Your task to perform on an android device: Open Google Maps Image 0: 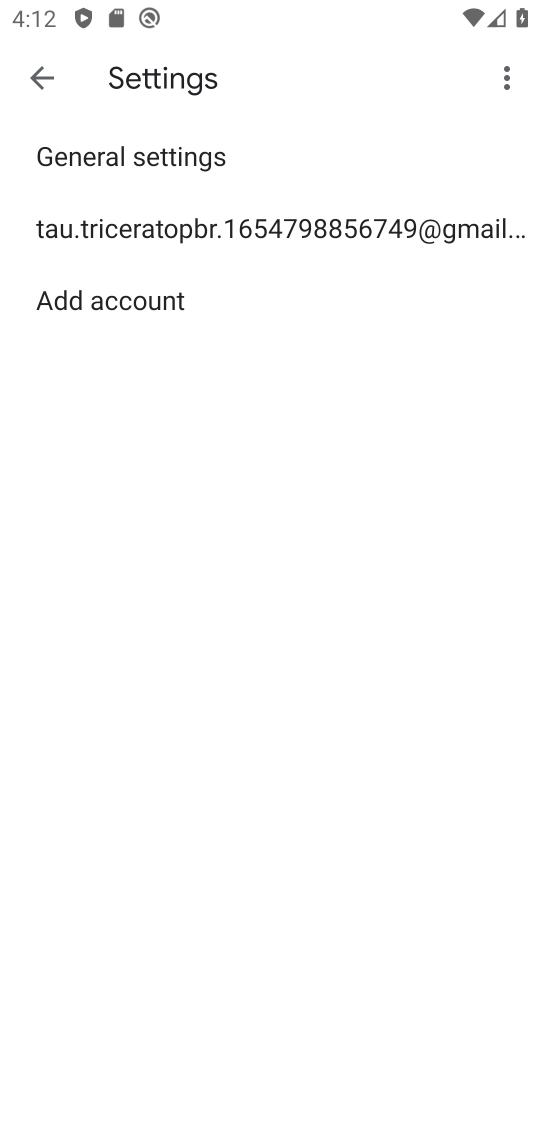
Step 0: press home button
Your task to perform on an android device: Open Google Maps Image 1: 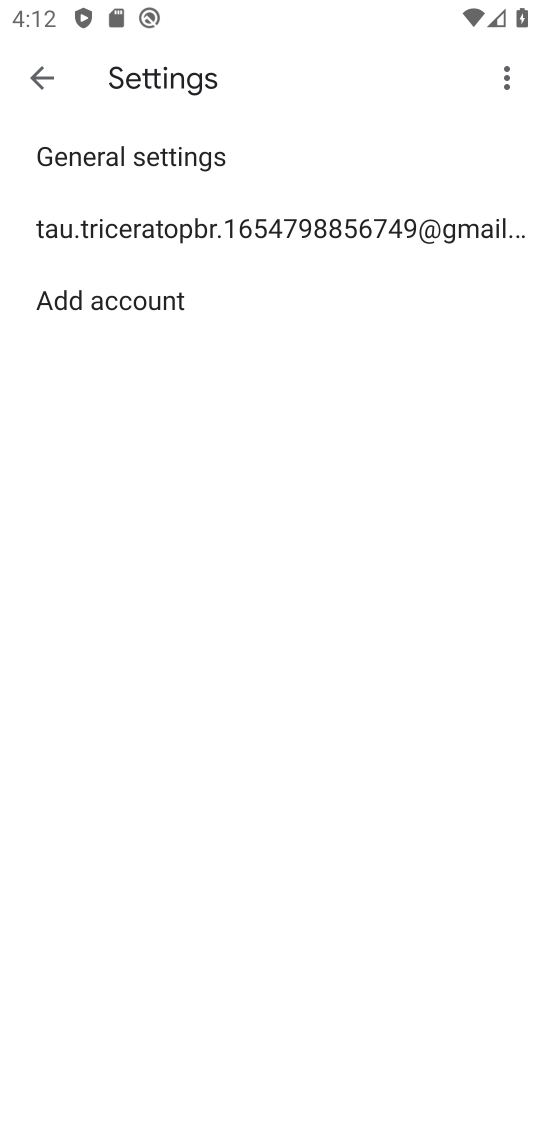
Step 1: press home button
Your task to perform on an android device: Open Google Maps Image 2: 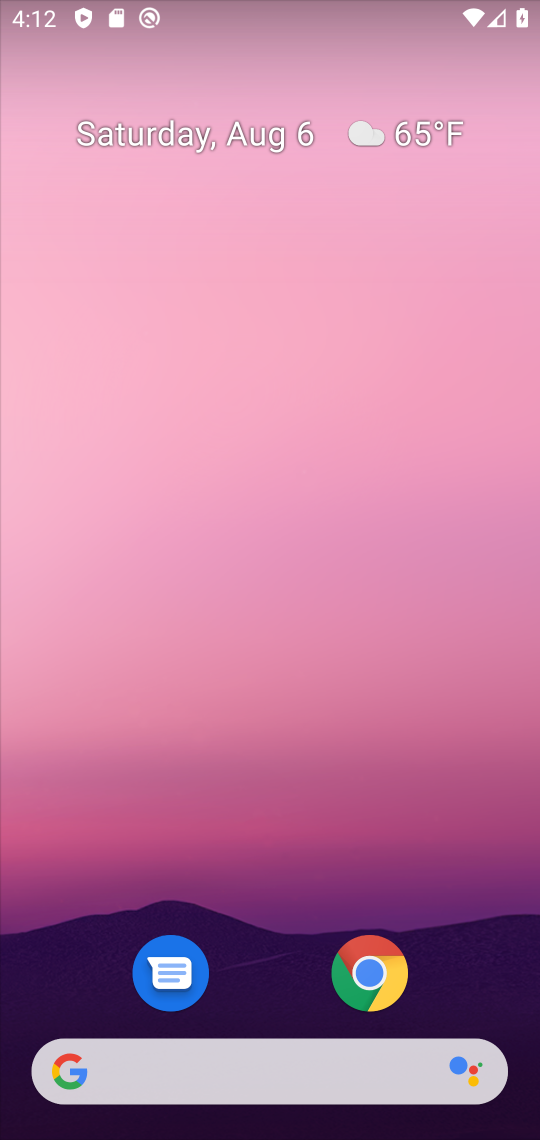
Step 2: drag from (257, 858) to (209, 36)
Your task to perform on an android device: Open Google Maps Image 3: 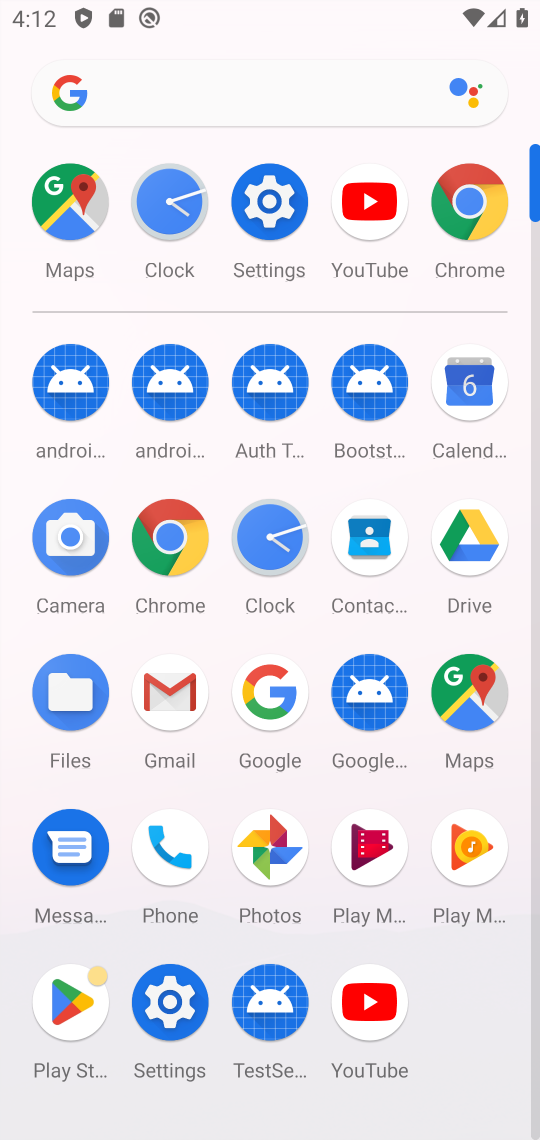
Step 3: click (471, 686)
Your task to perform on an android device: Open Google Maps Image 4: 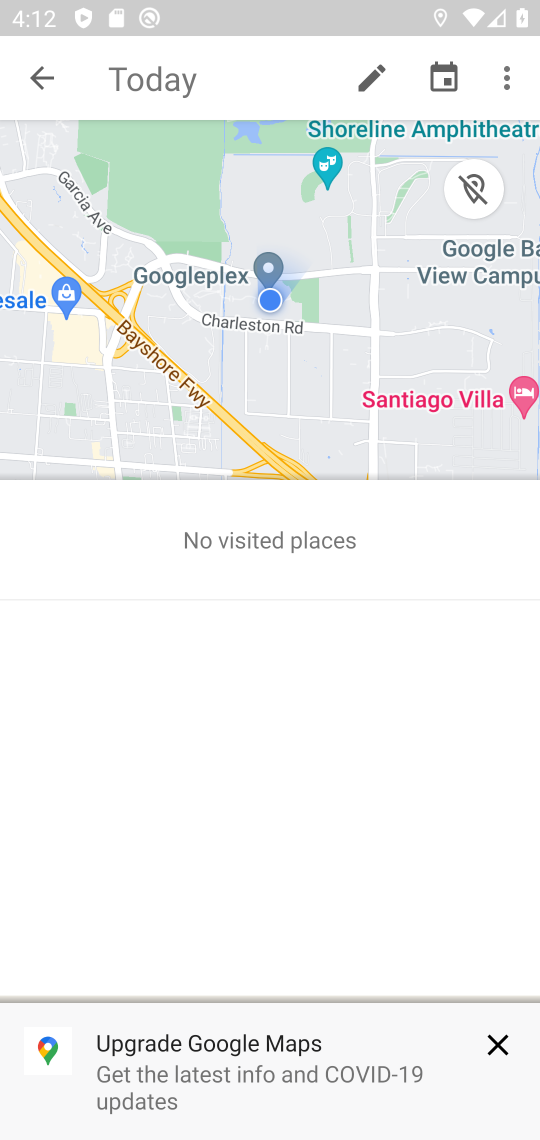
Step 4: task complete